Your task to perform on an android device: visit the assistant section in the google photos Image 0: 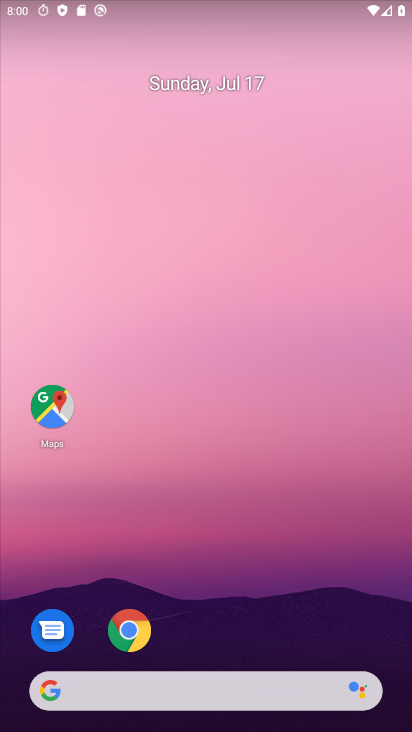
Step 0: drag from (29, 708) to (235, 185)
Your task to perform on an android device: visit the assistant section in the google photos Image 1: 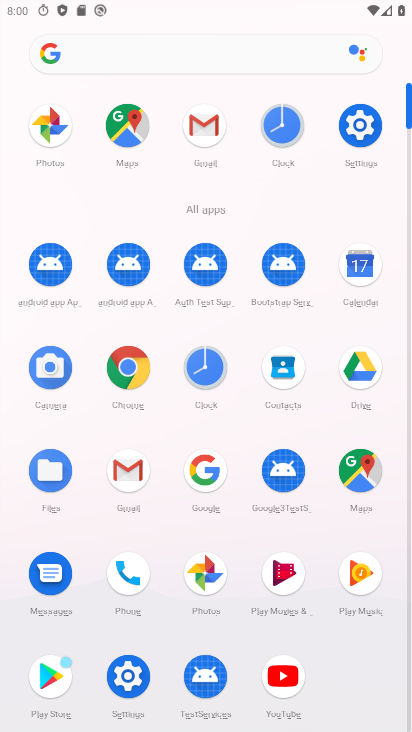
Step 1: click (213, 573)
Your task to perform on an android device: visit the assistant section in the google photos Image 2: 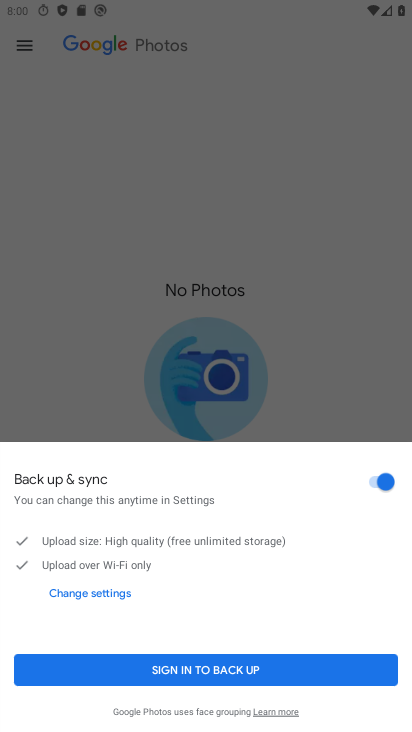
Step 2: click (175, 673)
Your task to perform on an android device: visit the assistant section in the google photos Image 3: 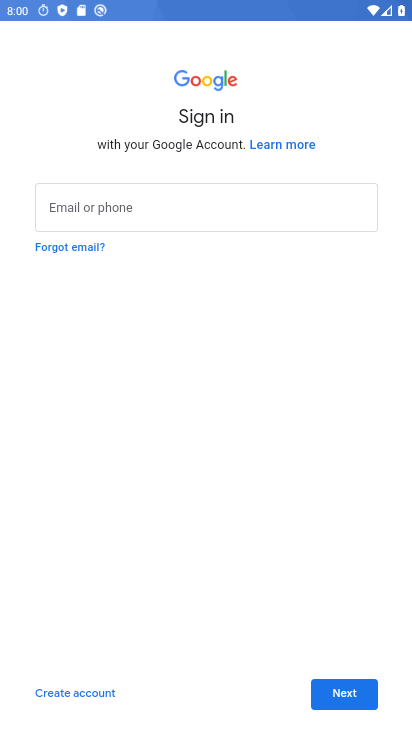
Step 3: task complete